Your task to perform on an android device: turn on the 24-hour format for clock Image 0: 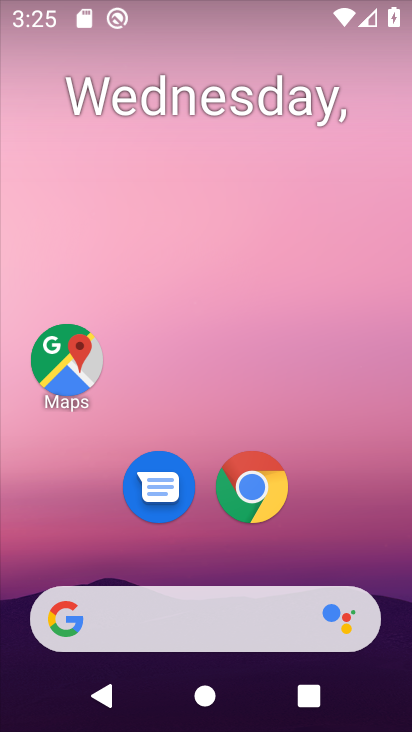
Step 0: drag from (355, 537) to (249, 126)
Your task to perform on an android device: turn on the 24-hour format for clock Image 1: 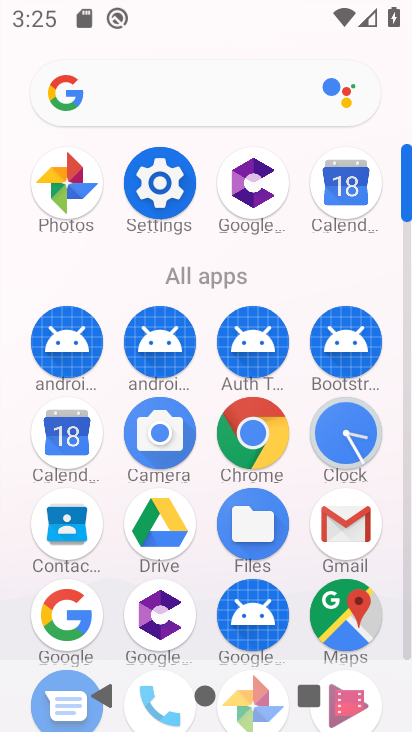
Step 1: click (344, 431)
Your task to perform on an android device: turn on the 24-hour format for clock Image 2: 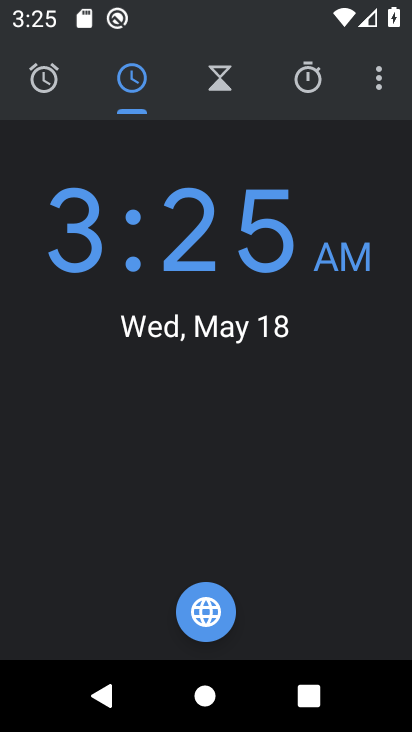
Step 2: click (380, 75)
Your task to perform on an android device: turn on the 24-hour format for clock Image 3: 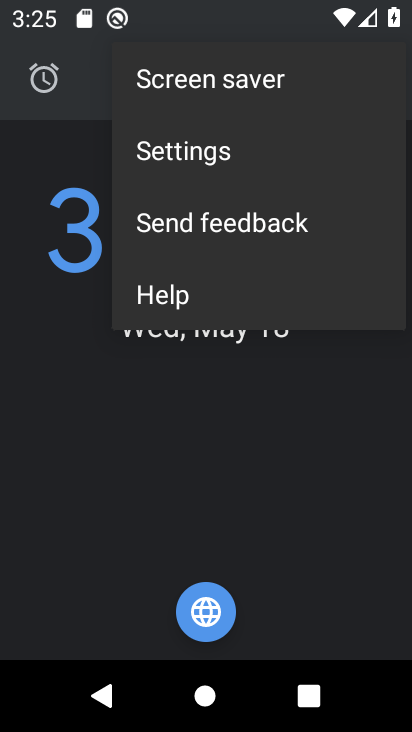
Step 3: click (211, 156)
Your task to perform on an android device: turn on the 24-hour format for clock Image 4: 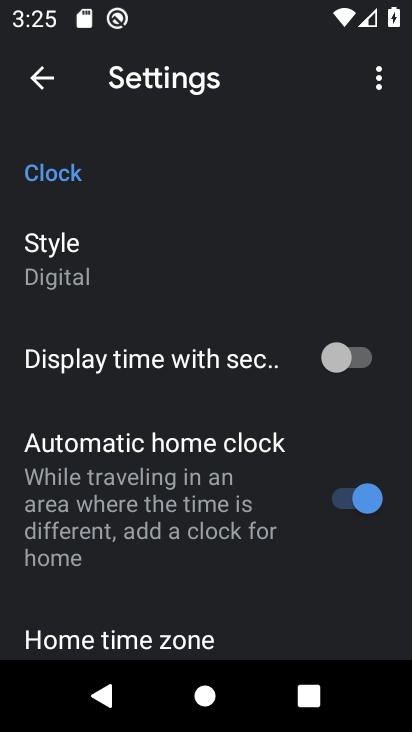
Step 4: drag from (138, 559) to (207, 432)
Your task to perform on an android device: turn on the 24-hour format for clock Image 5: 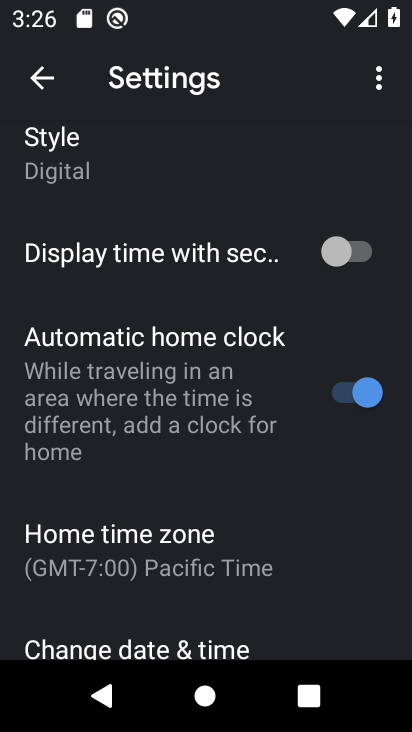
Step 5: drag from (146, 576) to (226, 463)
Your task to perform on an android device: turn on the 24-hour format for clock Image 6: 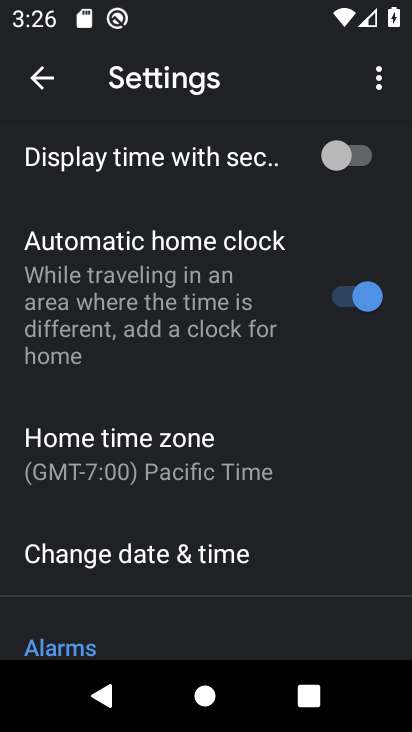
Step 6: click (158, 563)
Your task to perform on an android device: turn on the 24-hour format for clock Image 7: 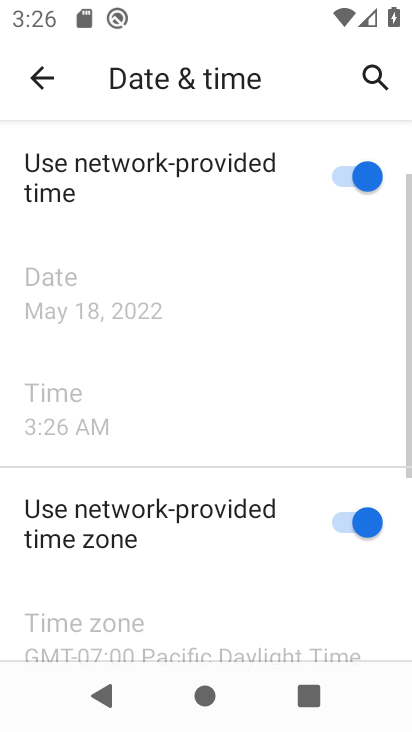
Step 7: drag from (158, 563) to (192, 400)
Your task to perform on an android device: turn on the 24-hour format for clock Image 8: 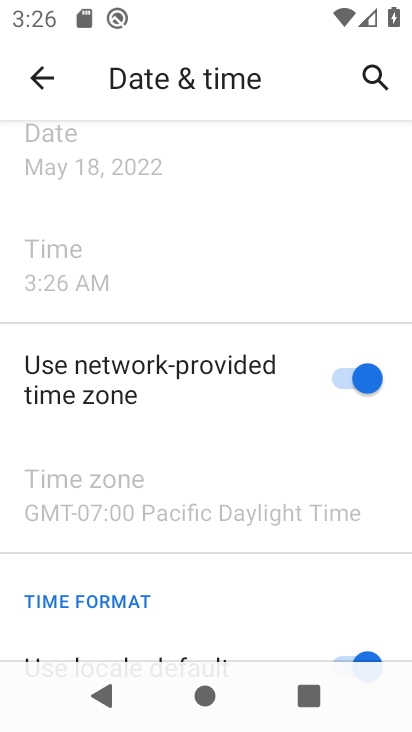
Step 8: drag from (143, 587) to (260, 359)
Your task to perform on an android device: turn on the 24-hour format for clock Image 9: 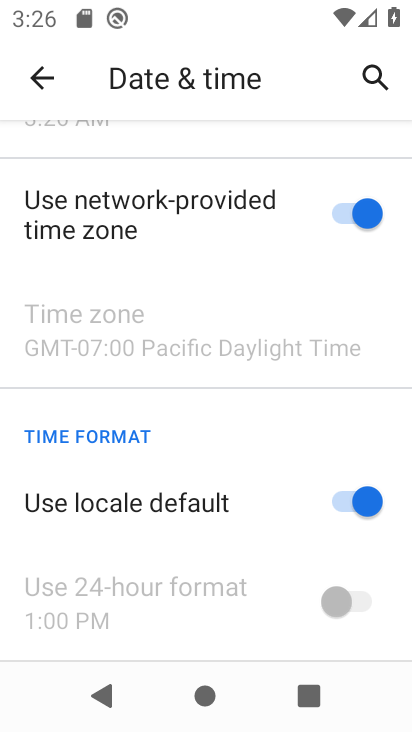
Step 9: click (330, 494)
Your task to perform on an android device: turn on the 24-hour format for clock Image 10: 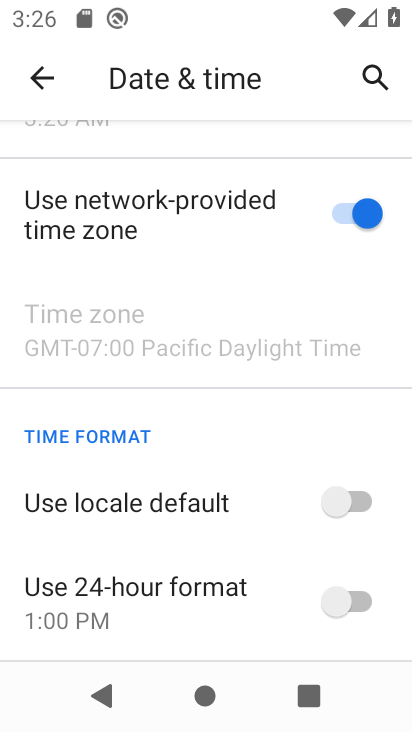
Step 10: click (334, 600)
Your task to perform on an android device: turn on the 24-hour format for clock Image 11: 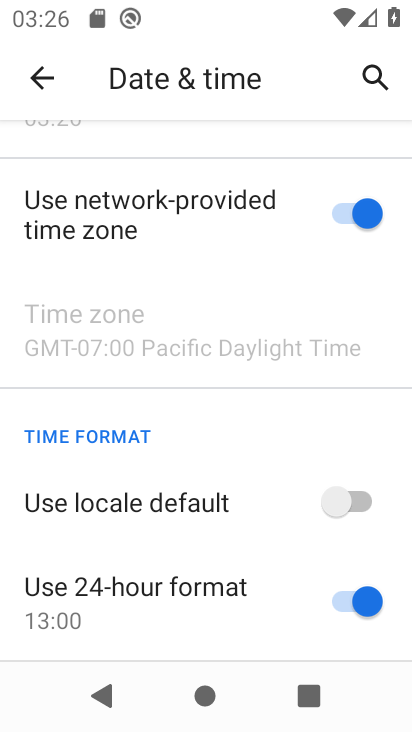
Step 11: task complete